Your task to perform on an android device: Open Youtube and go to "Your channel" Image 0: 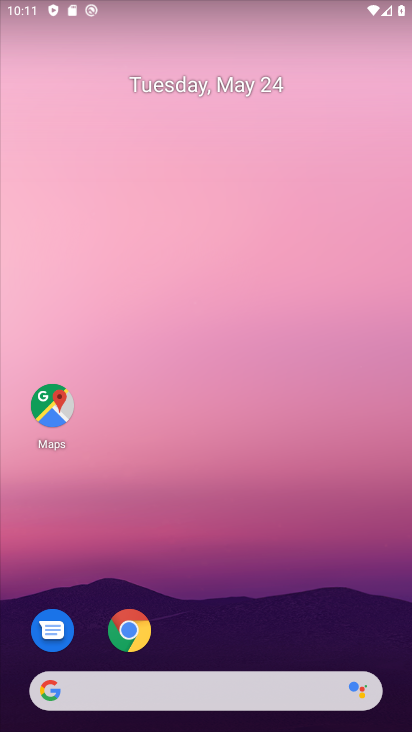
Step 0: press home button
Your task to perform on an android device: Open Youtube and go to "Your channel" Image 1: 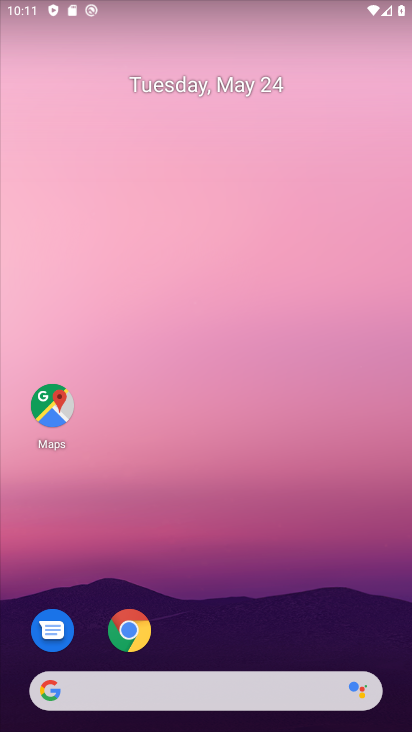
Step 1: drag from (201, 653) to (230, 81)
Your task to perform on an android device: Open Youtube and go to "Your channel" Image 2: 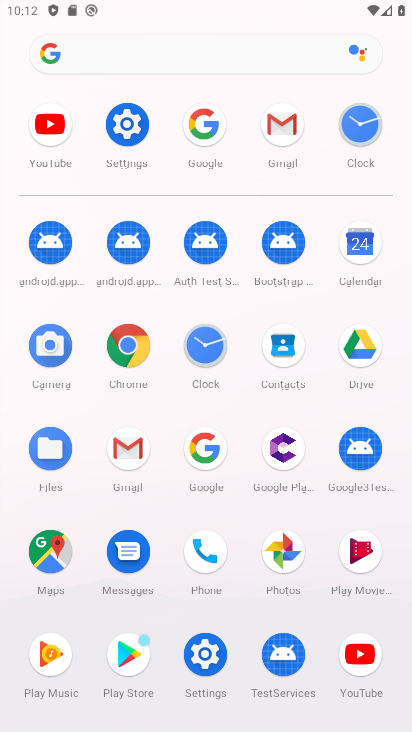
Step 2: click (357, 648)
Your task to perform on an android device: Open Youtube and go to "Your channel" Image 3: 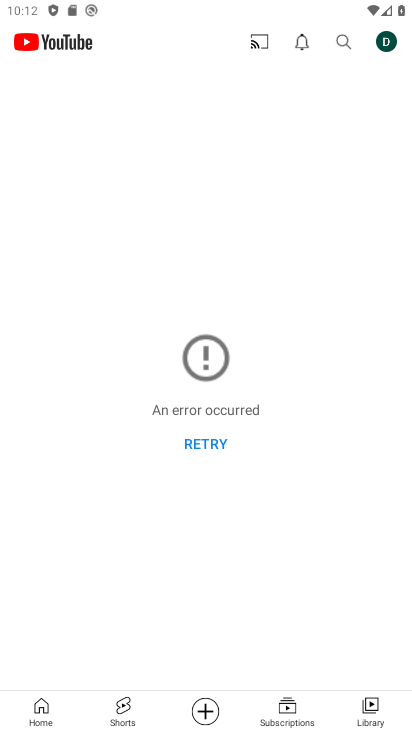
Step 3: click (381, 42)
Your task to perform on an android device: Open Youtube and go to "Your channel" Image 4: 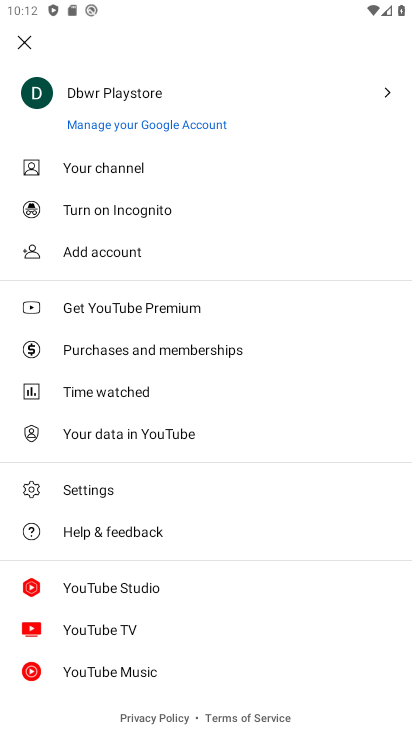
Step 4: click (88, 170)
Your task to perform on an android device: Open Youtube and go to "Your channel" Image 5: 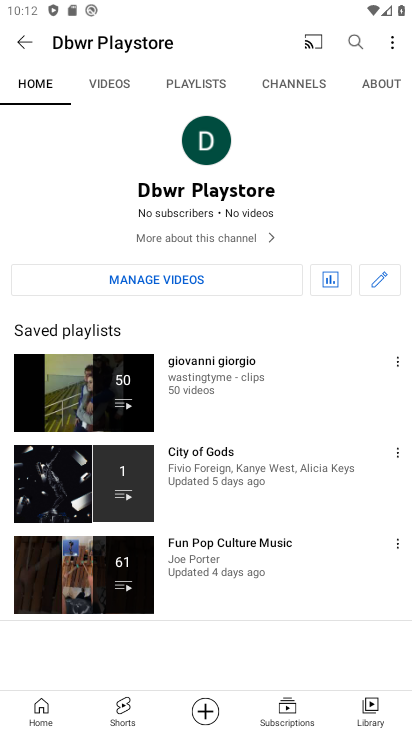
Step 5: task complete